Your task to perform on an android device: snooze an email in the gmail app Image 0: 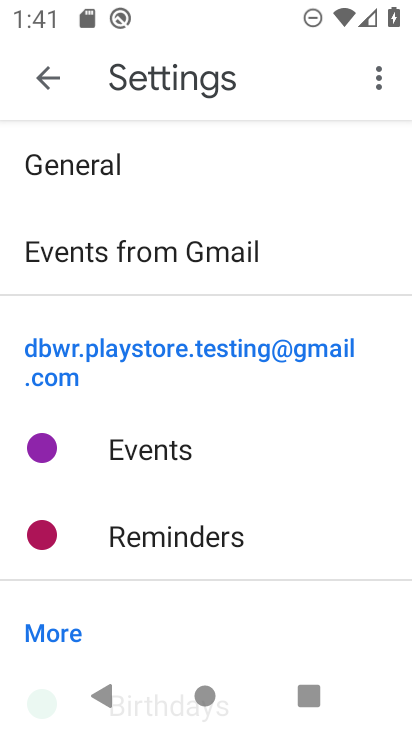
Step 0: press home button
Your task to perform on an android device: snooze an email in the gmail app Image 1: 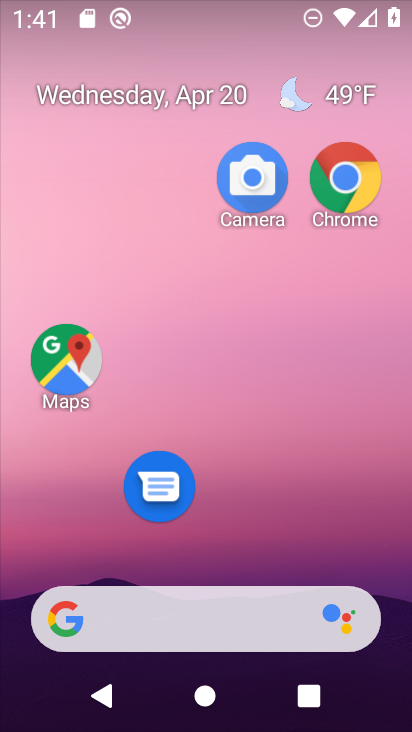
Step 1: drag from (273, 663) to (215, 307)
Your task to perform on an android device: snooze an email in the gmail app Image 2: 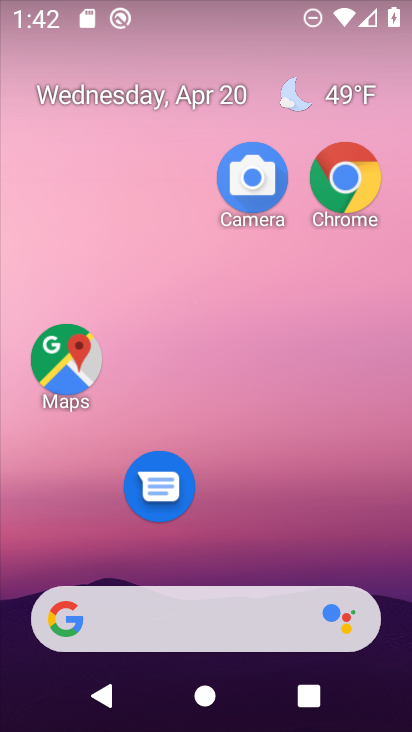
Step 2: drag from (231, 347) to (168, 184)
Your task to perform on an android device: snooze an email in the gmail app Image 3: 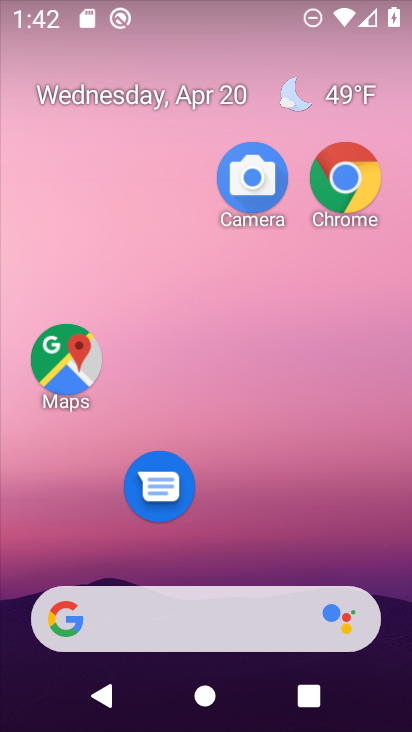
Step 3: drag from (175, 652) to (164, 109)
Your task to perform on an android device: snooze an email in the gmail app Image 4: 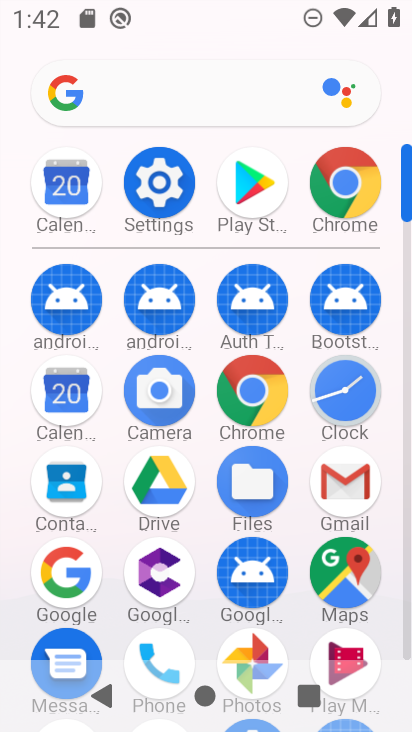
Step 4: click (342, 473)
Your task to perform on an android device: snooze an email in the gmail app Image 5: 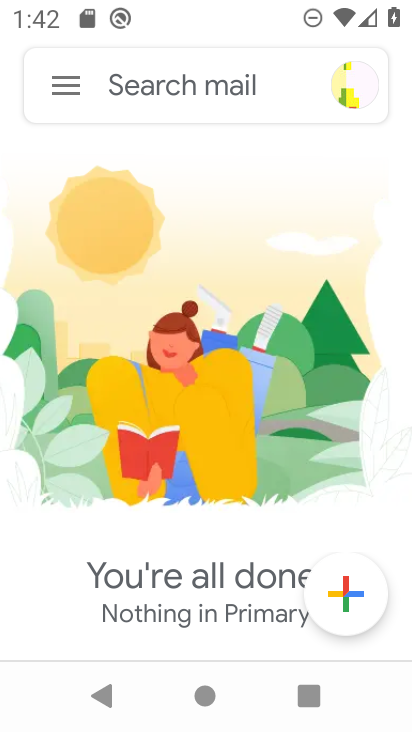
Step 5: click (73, 66)
Your task to perform on an android device: snooze an email in the gmail app Image 6: 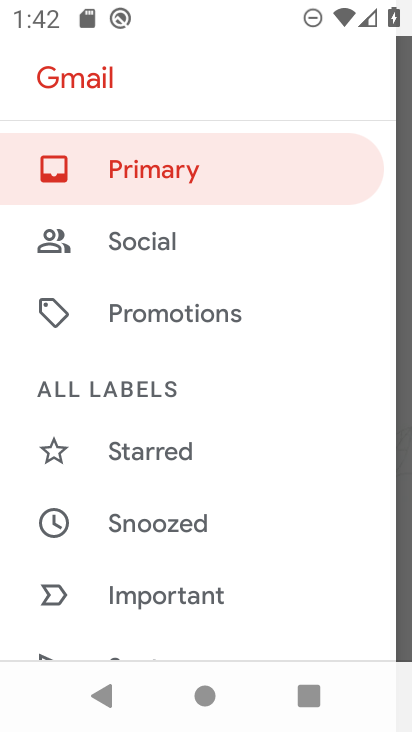
Step 6: drag from (177, 492) to (213, 319)
Your task to perform on an android device: snooze an email in the gmail app Image 7: 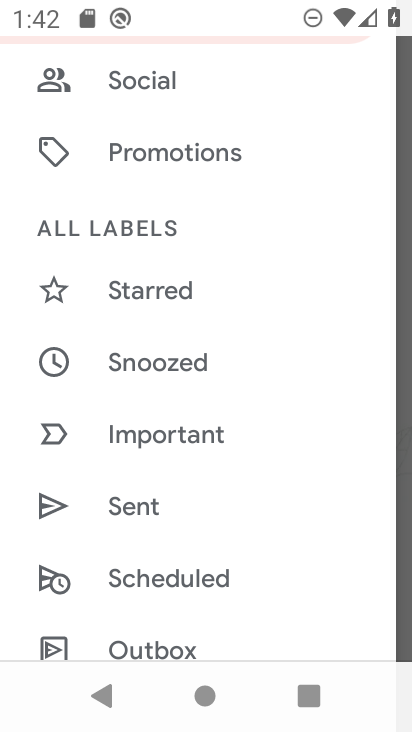
Step 7: drag from (165, 539) to (264, 225)
Your task to perform on an android device: snooze an email in the gmail app Image 8: 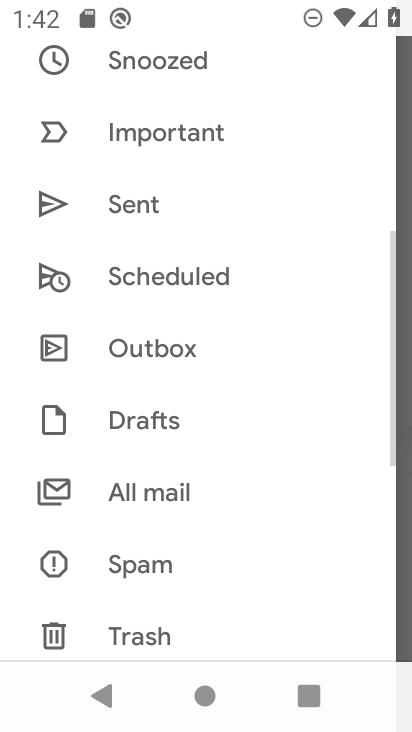
Step 8: drag from (162, 549) to (155, 306)
Your task to perform on an android device: snooze an email in the gmail app Image 9: 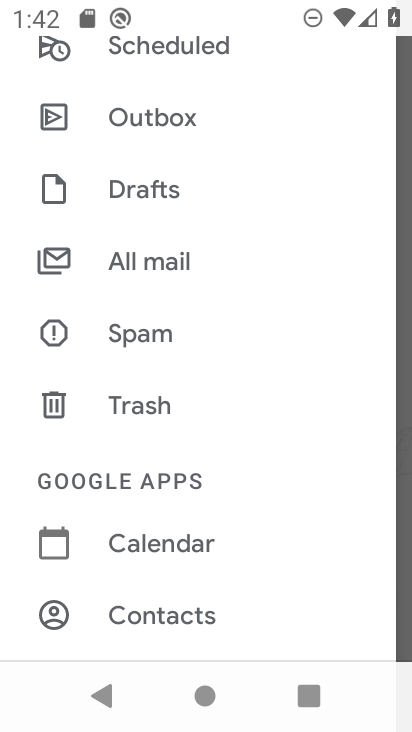
Step 9: drag from (112, 167) to (149, 490)
Your task to perform on an android device: snooze an email in the gmail app Image 10: 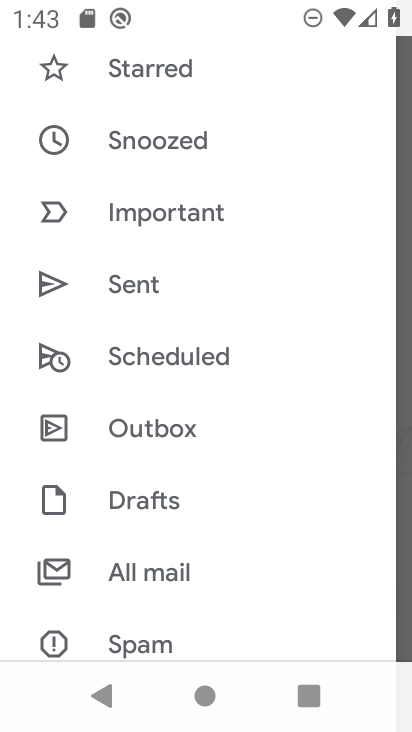
Step 10: click (148, 140)
Your task to perform on an android device: snooze an email in the gmail app Image 11: 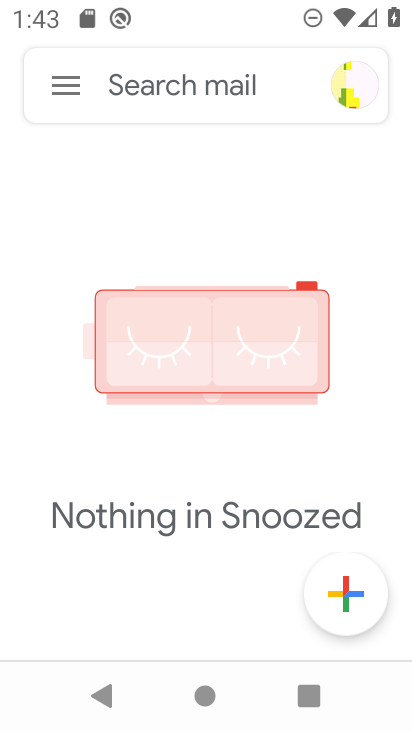
Step 11: task complete